Your task to perform on an android device: Open display settings Image 0: 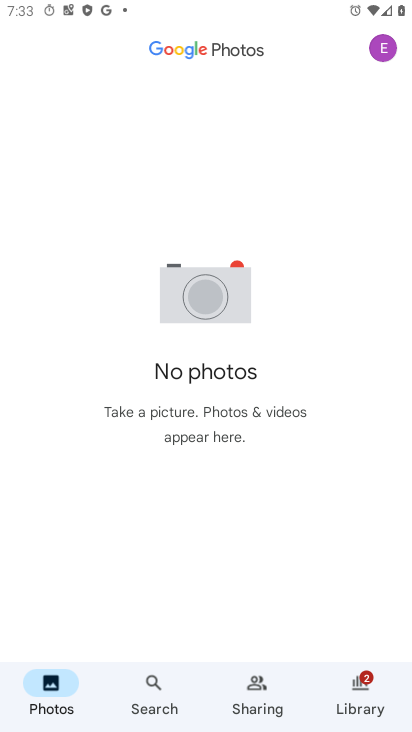
Step 0: press home button
Your task to perform on an android device: Open display settings Image 1: 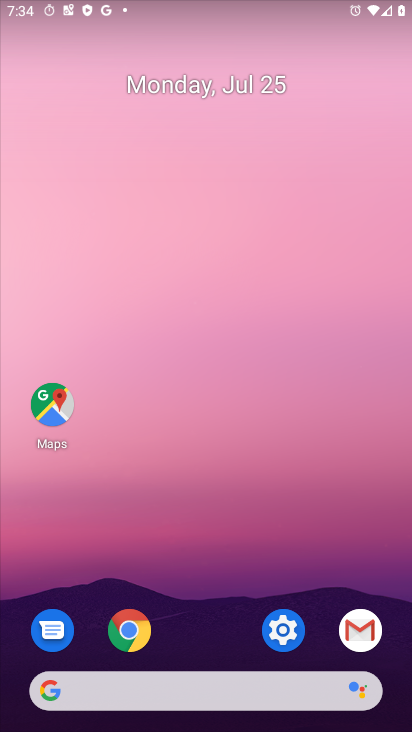
Step 1: click (279, 631)
Your task to perform on an android device: Open display settings Image 2: 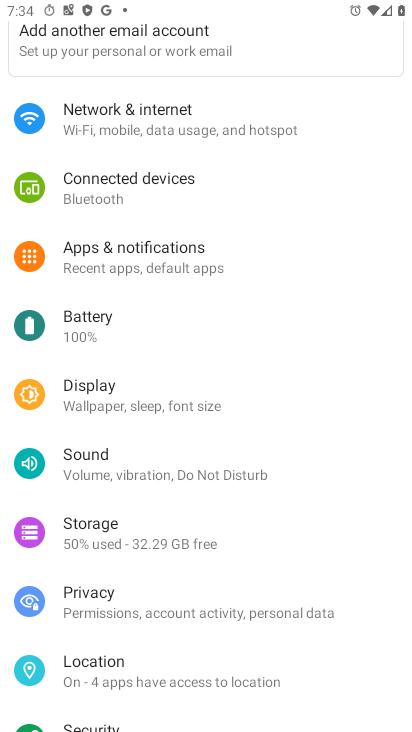
Step 2: click (102, 392)
Your task to perform on an android device: Open display settings Image 3: 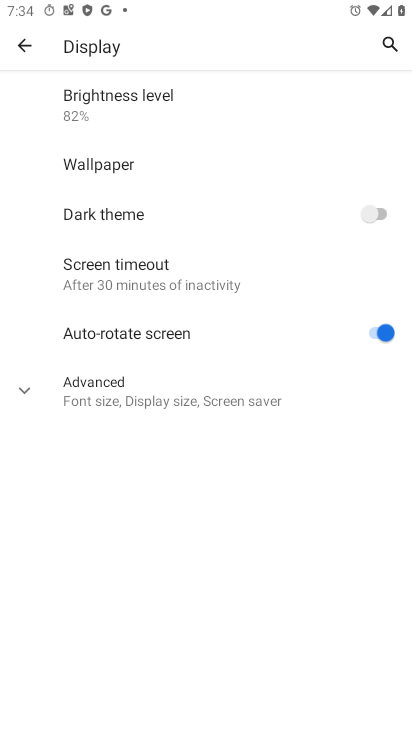
Step 3: task complete